Your task to perform on an android device: read, delete, or share a saved page in the chrome app Image 0: 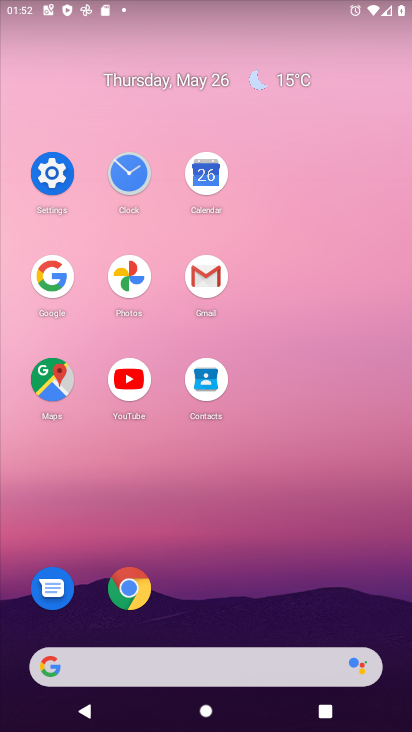
Step 0: click (124, 599)
Your task to perform on an android device: read, delete, or share a saved page in the chrome app Image 1: 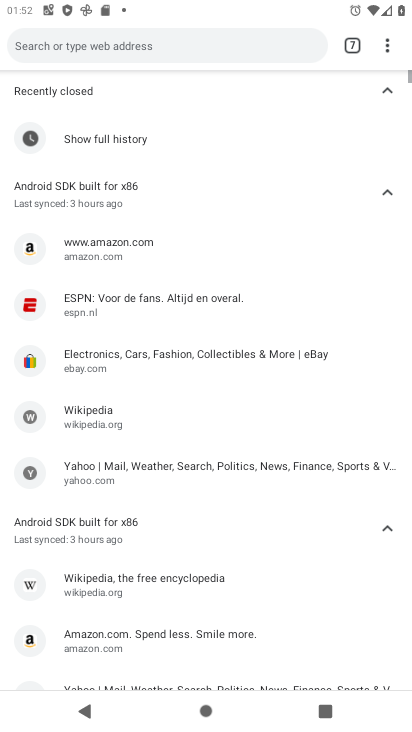
Step 1: click (389, 43)
Your task to perform on an android device: read, delete, or share a saved page in the chrome app Image 2: 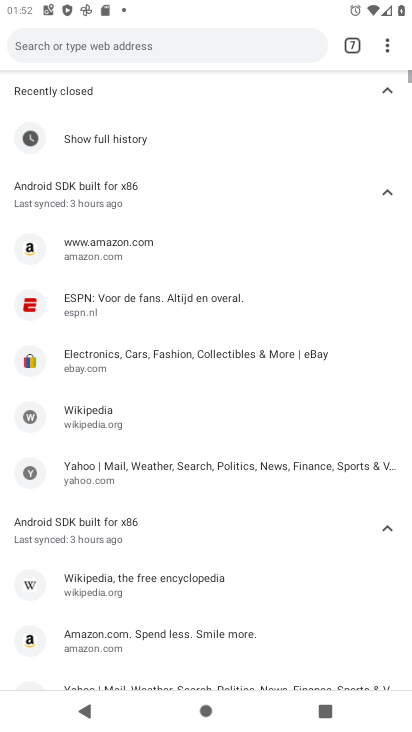
Step 2: click (386, 44)
Your task to perform on an android device: read, delete, or share a saved page in the chrome app Image 3: 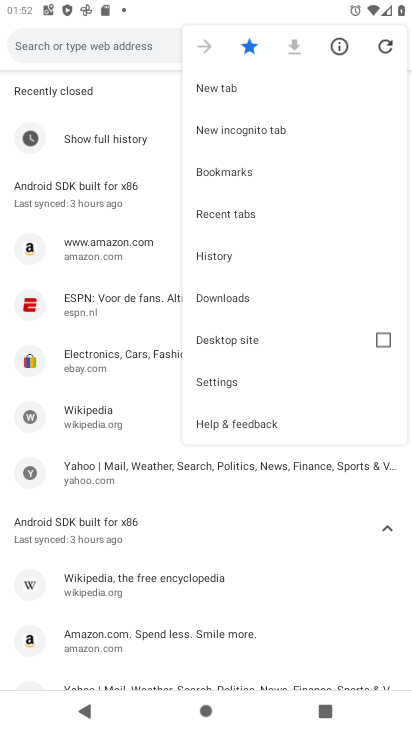
Step 3: click (220, 302)
Your task to perform on an android device: read, delete, or share a saved page in the chrome app Image 4: 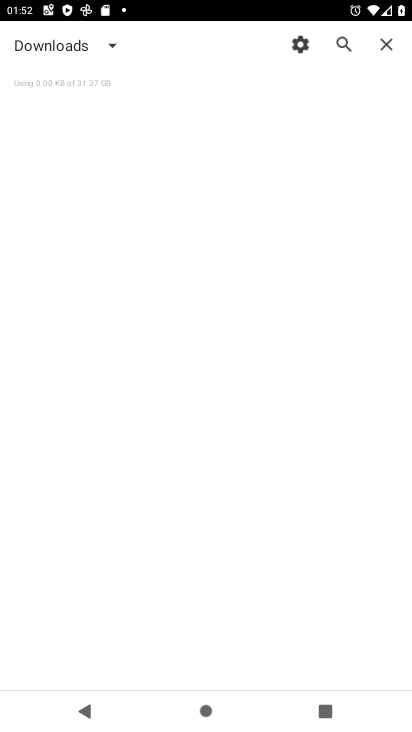
Step 4: task complete